Your task to perform on an android device: move a message to another label in the gmail app Image 0: 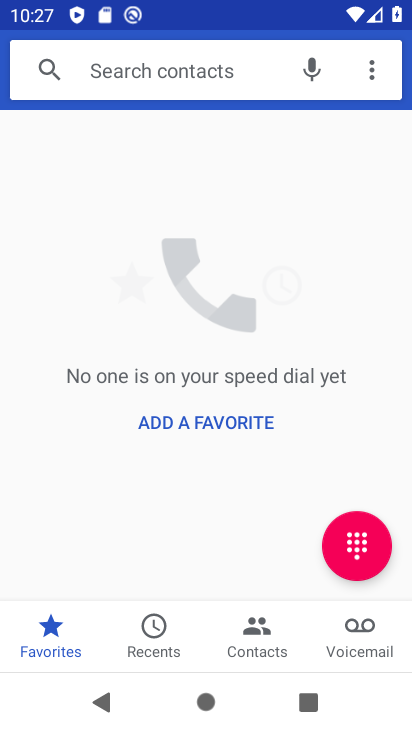
Step 0: press back button
Your task to perform on an android device: move a message to another label in the gmail app Image 1: 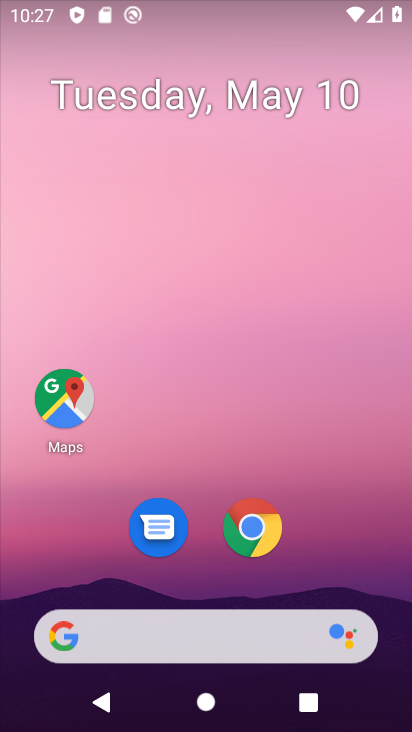
Step 1: drag from (173, 527) to (316, 42)
Your task to perform on an android device: move a message to another label in the gmail app Image 2: 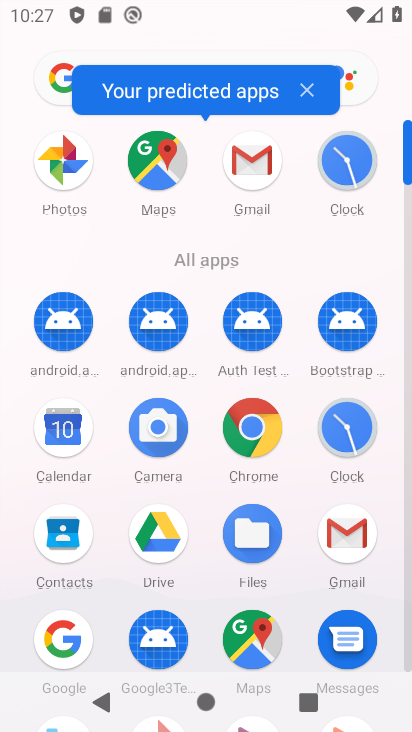
Step 2: click (244, 146)
Your task to perform on an android device: move a message to another label in the gmail app Image 3: 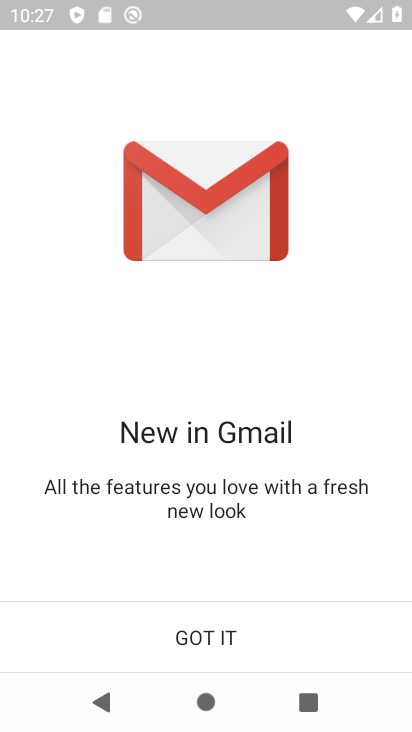
Step 3: click (195, 638)
Your task to perform on an android device: move a message to another label in the gmail app Image 4: 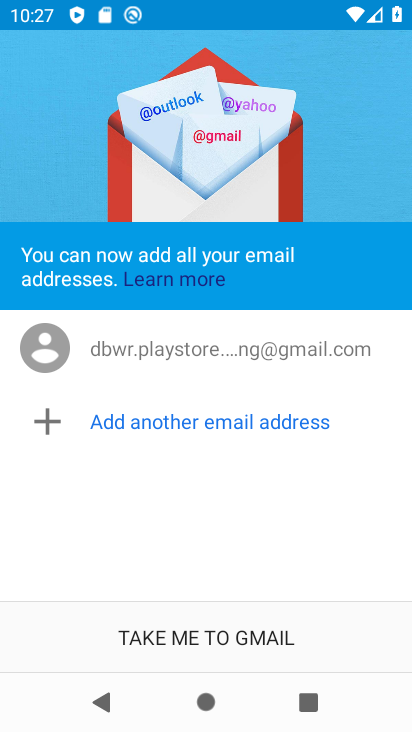
Step 4: click (176, 623)
Your task to perform on an android device: move a message to another label in the gmail app Image 5: 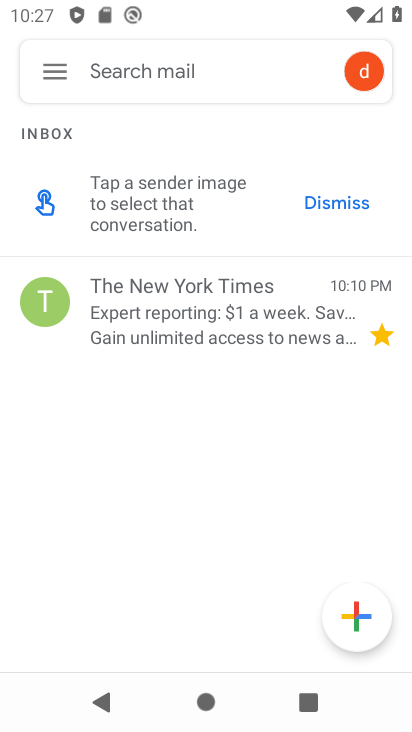
Step 5: click (169, 333)
Your task to perform on an android device: move a message to another label in the gmail app Image 6: 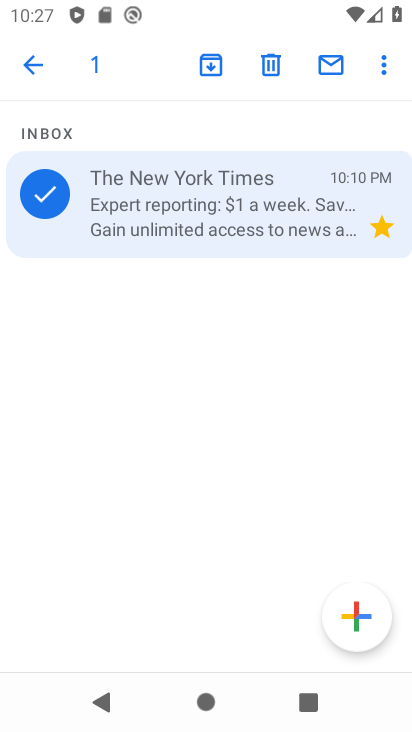
Step 6: click (385, 58)
Your task to perform on an android device: move a message to another label in the gmail app Image 7: 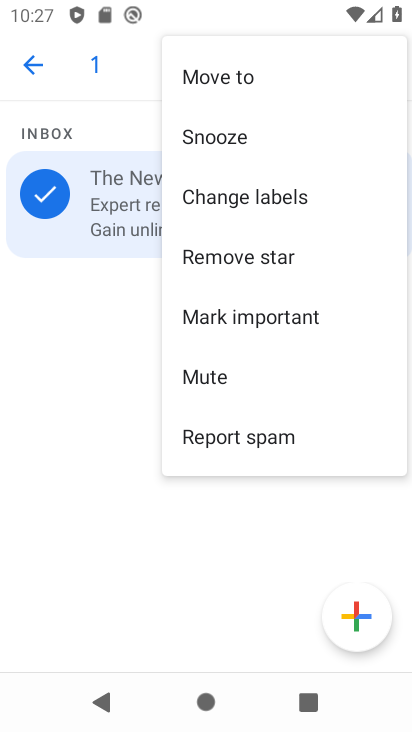
Step 7: click (242, 76)
Your task to perform on an android device: move a message to another label in the gmail app Image 8: 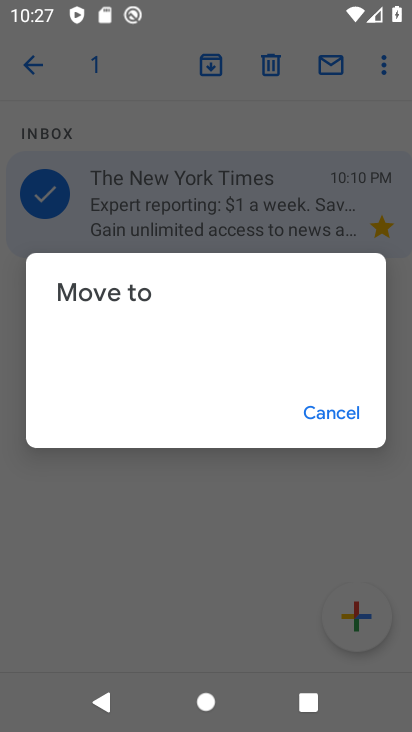
Step 8: click (341, 409)
Your task to perform on an android device: move a message to another label in the gmail app Image 9: 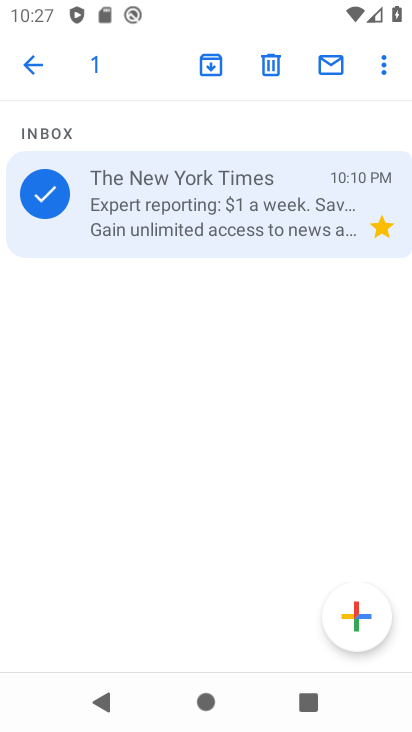
Step 9: click (43, 56)
Your task to perform on an android device: move a message to another label in the gmail app Image 10: 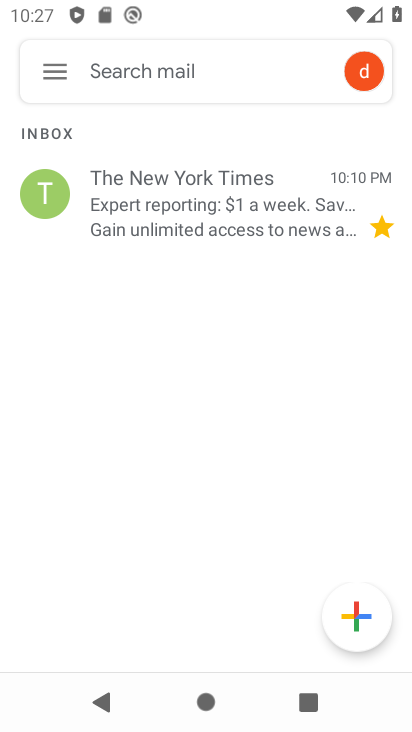
Step 10: click (44, 64)
Your task to perform on an android device: move a message to another label in the gmail app Image 11: 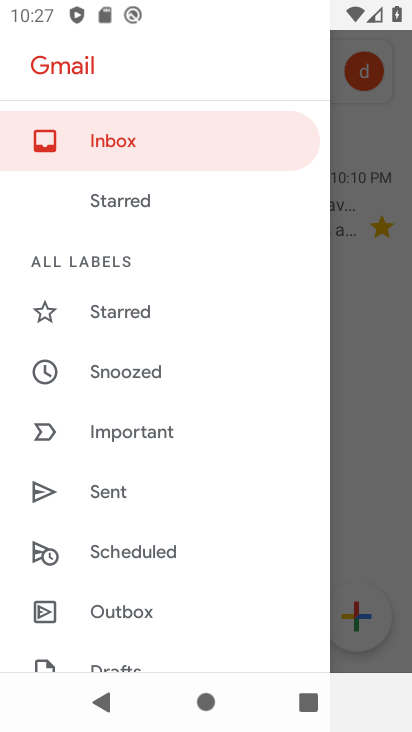
Step 11: drag from (134, 601) to (248, 226)
Your task to perform on an android device: move a message to another label in the gmail app Image 12: 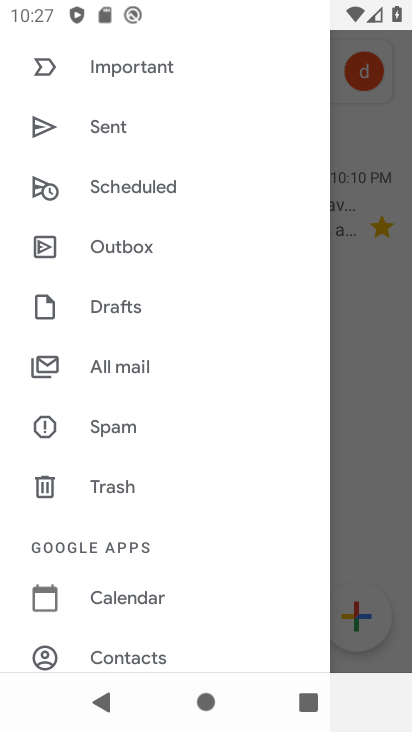
Step 12: click (116, 373)
Your task to perform on an android device: move a message to another label in the gmail app Image 13: 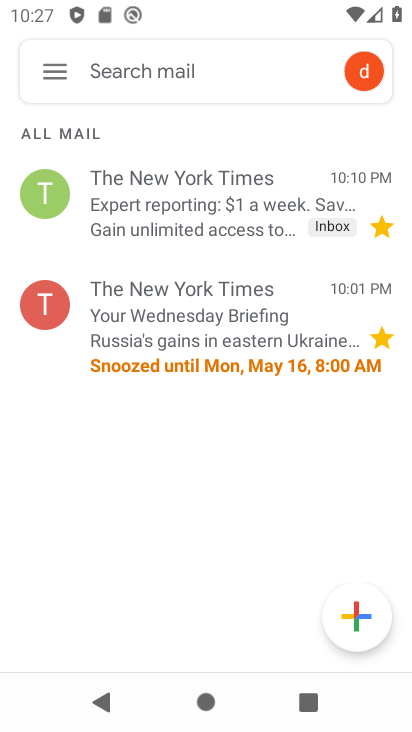
Step 13: click (150, 312)
Your task to perform on an android device: move a message to another label in the gmail app Image 14: 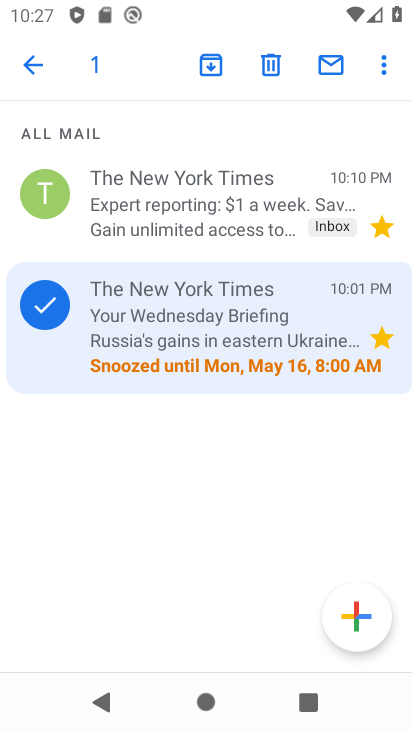
Step 14: click (378, 67)
Your task to perform on an android device: move a message to another label in the gmail app Image 15: 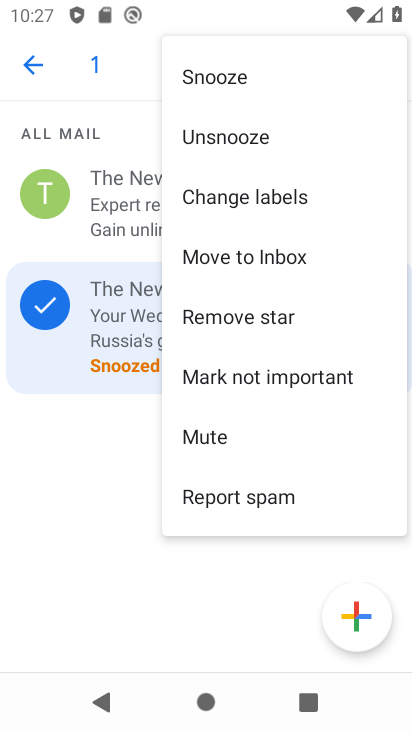
Step 15: click (265, 263)
Your task to perform on an android device: move a message to another label in the gmail app Image 16: 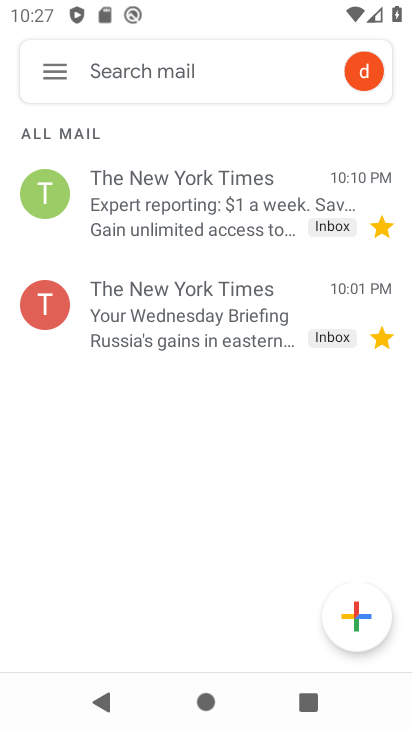
Step 16: task complete